Your task to perform on an android device: Open Google Image 0: 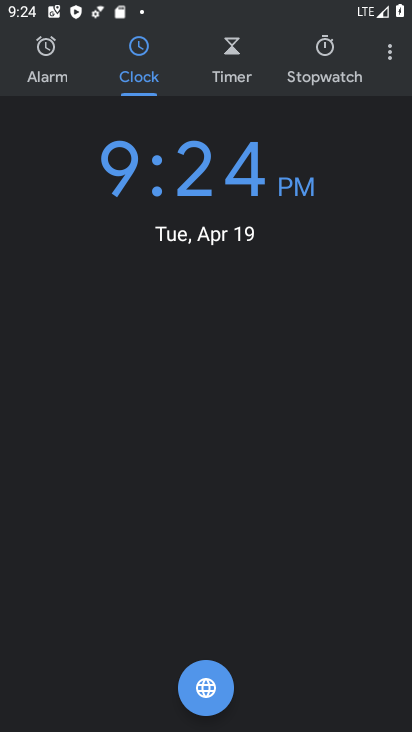
Step 0: press home button
Your task to perform on an android device: Open Google Image 1: 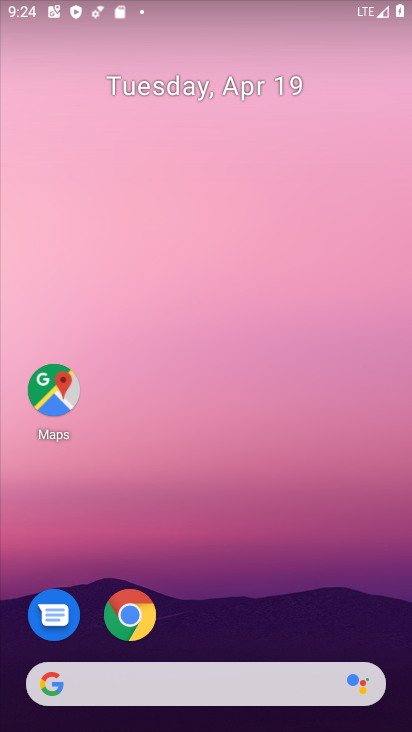
Step 1: click (176, 677)
Your task to perform on an android device: Open Google Image 2: 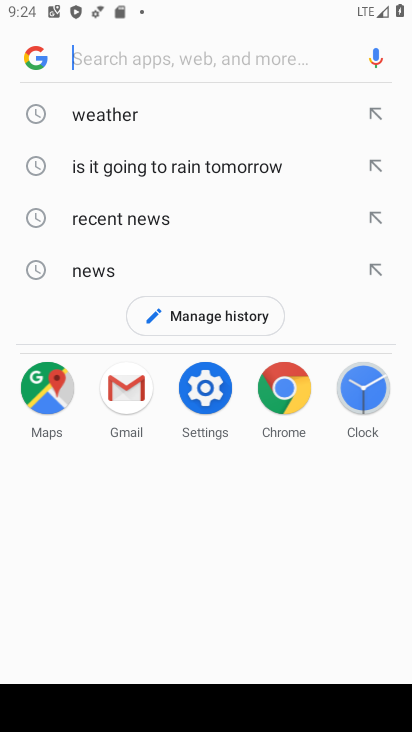
Step 2: click (29, 61)
Your task to perform on an android device: Open Google Image 3: 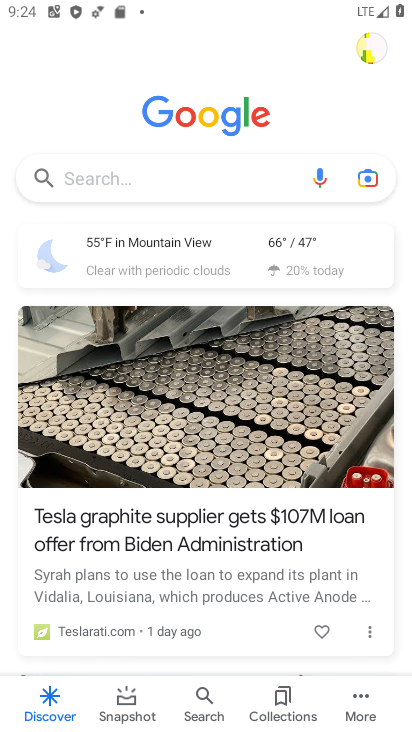
Step 3: task complete